Your task to perform on an android device: Open Chrome and go to the settings page Image 0: 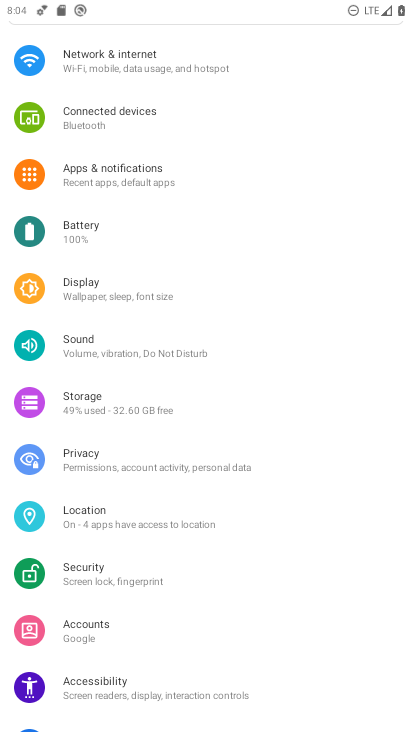
Step 0: press home button
Your task to perform on an android device: Open Chrome and go to the settings page Image 1: 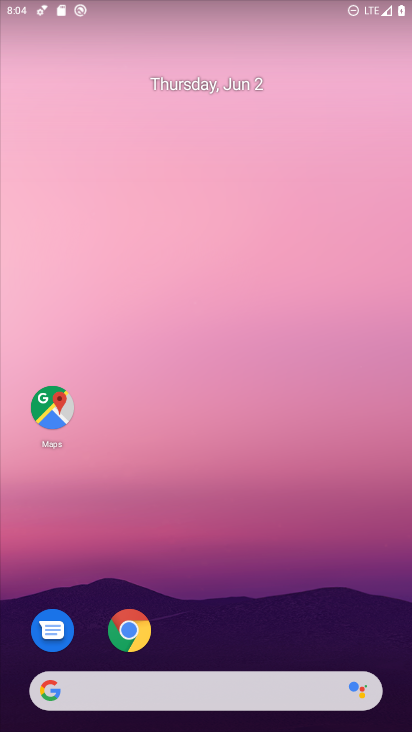
Step 1: click (124, 630)
Your task to perform on an android device: Open Chrome and go to the settings page Image 2: 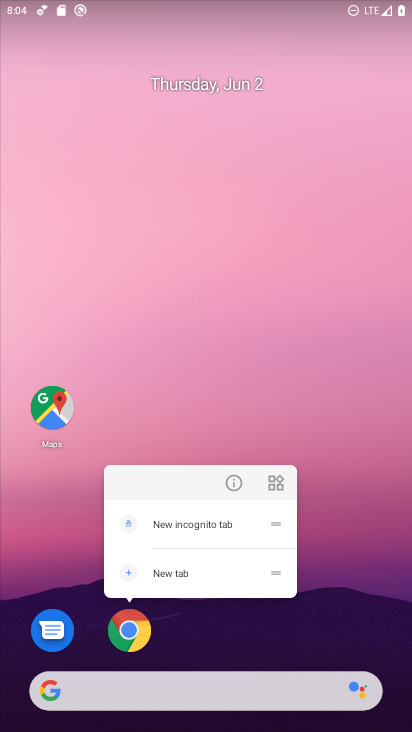
Step 2: click (118, 632)
Your task to perform on an android device: Open Chrome and go to the settings page Image 3: 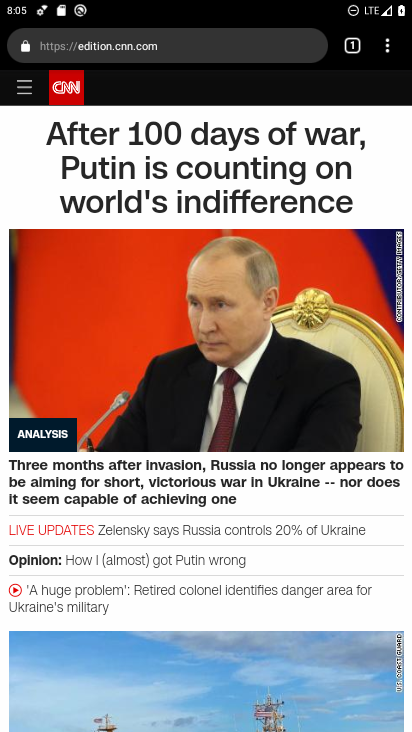
Step 3: click (389, 40)
Your task to perform on an android device: Open Chrome and go to the settings page Image 4: 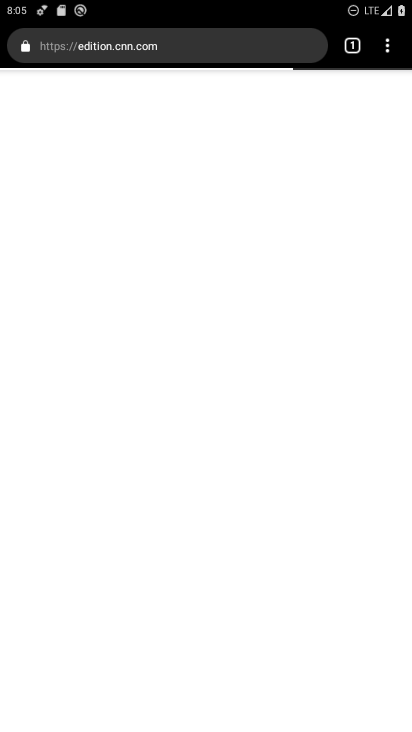
Step 4: click (391, 47)
Your task to perform on an android device: Open Chrome and go to the settings page Image 5: 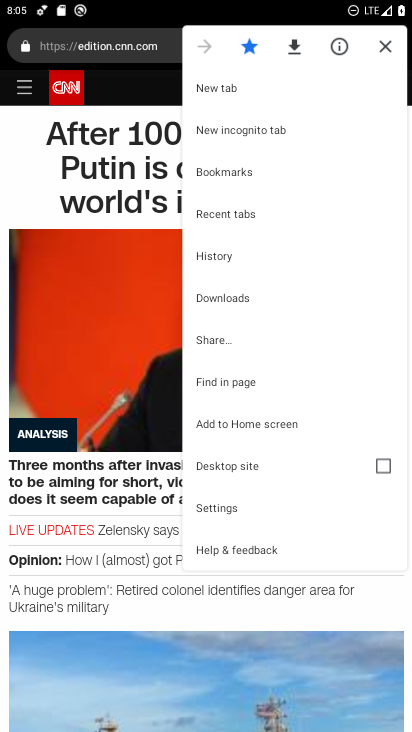
Step 5: click (241, 510)
Your task to perform on an android device: Open Chrome and go to the settings page Image 6: 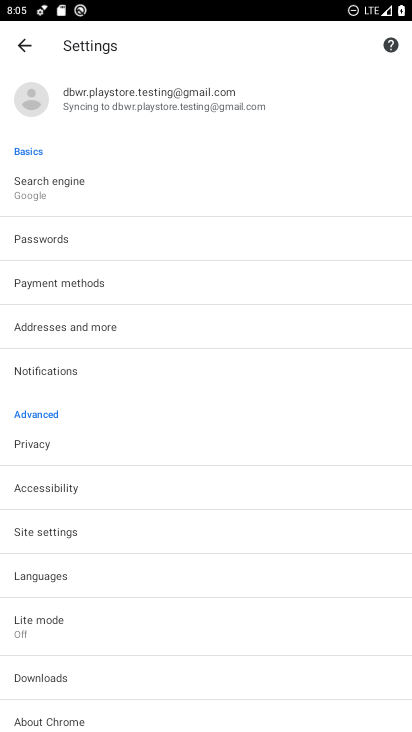
Step 6: task complete